Your task to perform on an android device: Go to notification settings Image 0: 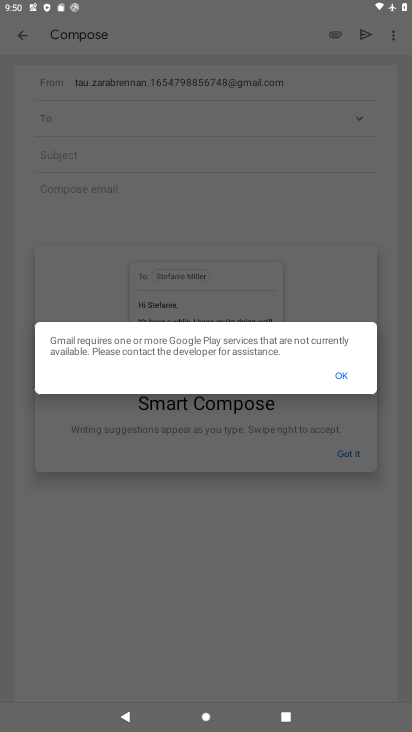
Step 0: press home button
Your task to perform on an android device: Go to notification settings Image 1: 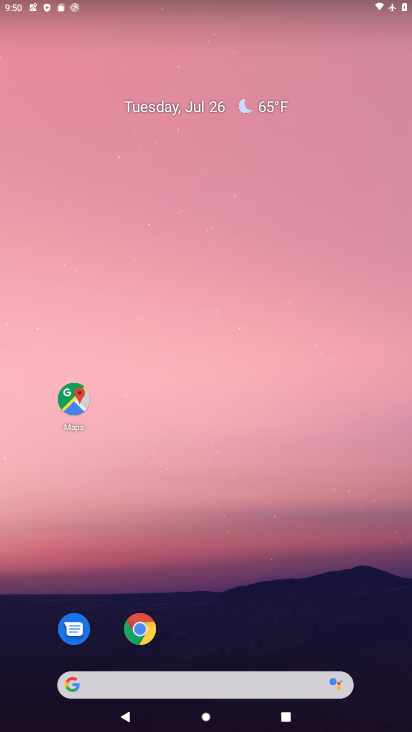
Step 1: drag from (313, 648) to (293, 78)
Your task to perform on an android device: Go to notification settings Image 2: 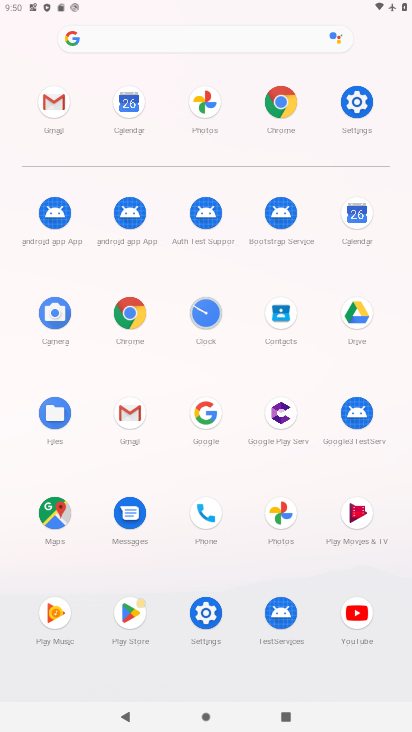
Step 2: click (354, 102)
Your task to perform on an android device: Go to notification settings Image 3: 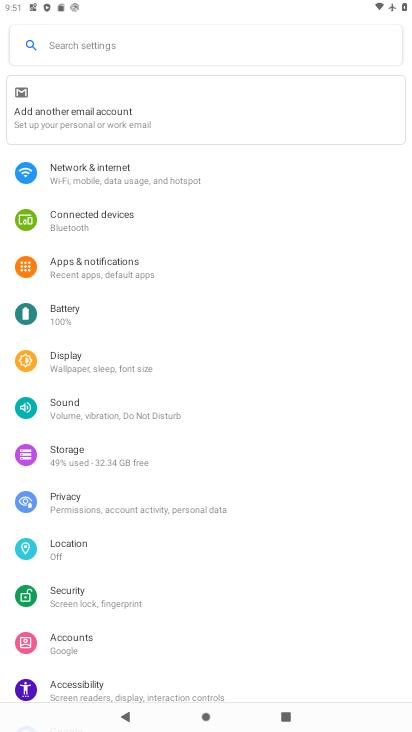
Step 3: click (117, 260)
Your task to perform on an android device: Go to notification settings Image 4: 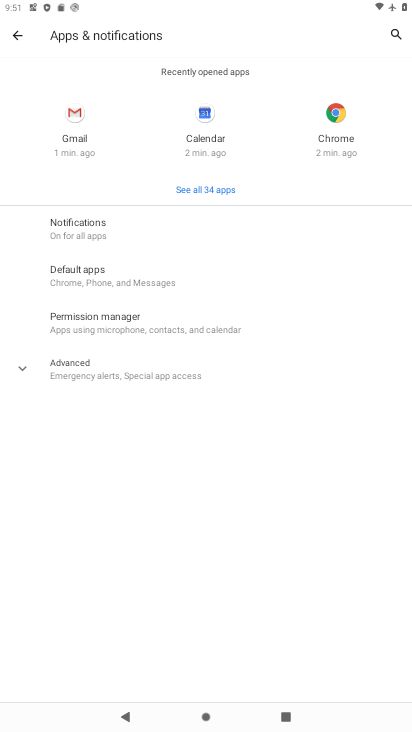
Step 4: click (103, 236)
Your task to perform on an android device: Go to notification settings Image 5: 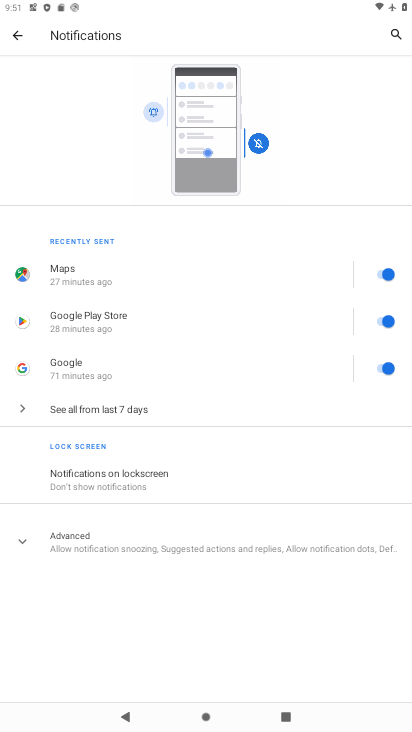
Step 5: task complete